Your task to perform on an android device: What's the latest video from GameSpot Reviews? Image 0: 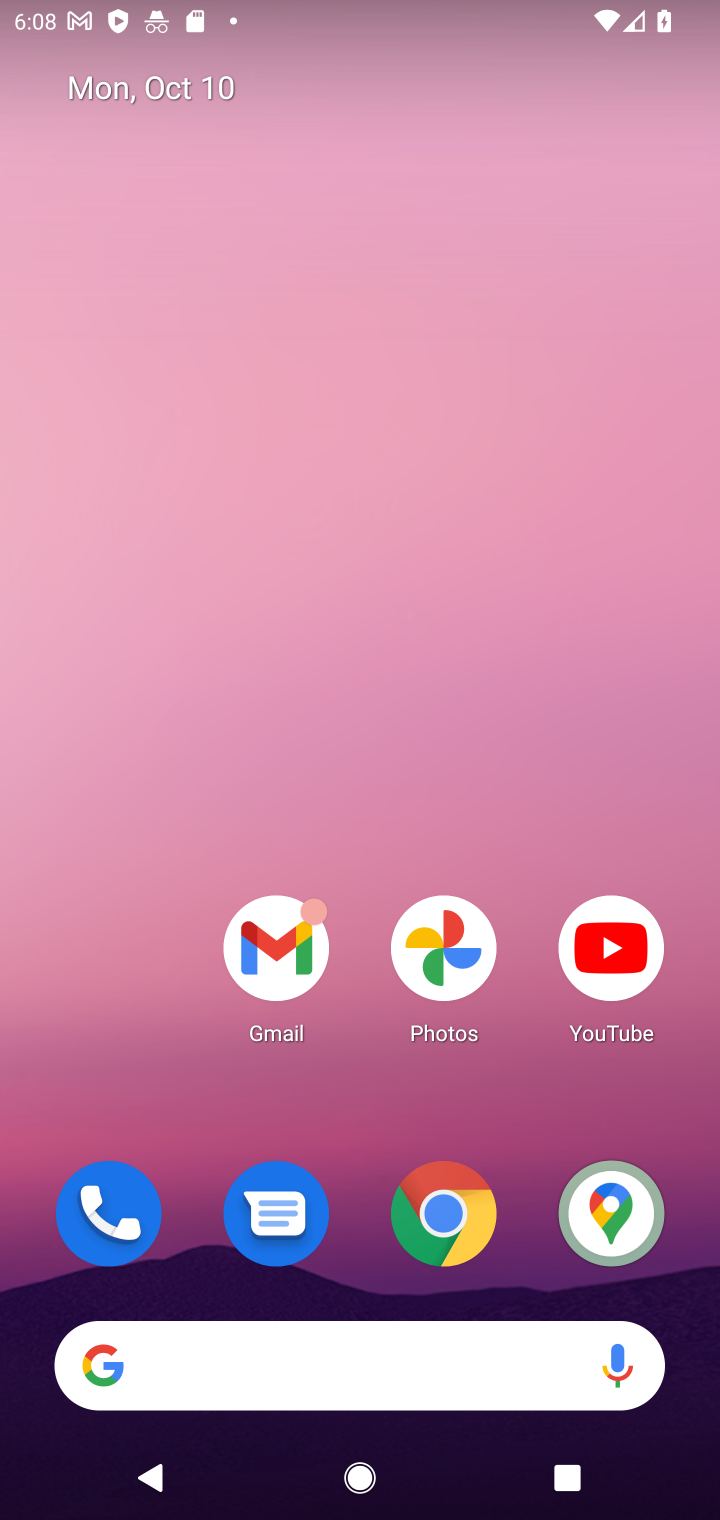
Step 0: click (611, 964)
Your task to perform on an android device: What's the latest video from GameSpot Reviews? Image 1: 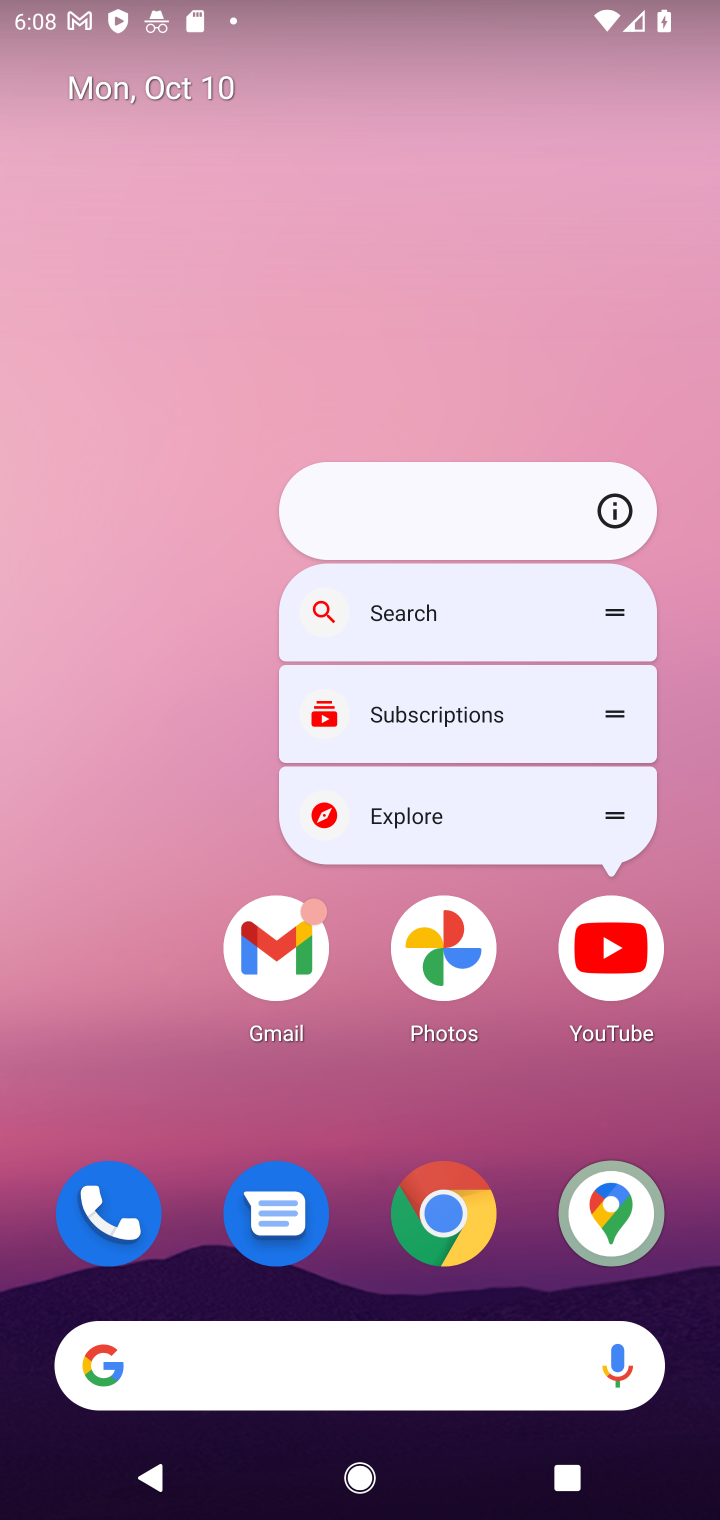
Step 1: click (611, 964)
Your task to perform on an android device: What's the latest video from GameSpot Reviews? Image 2: 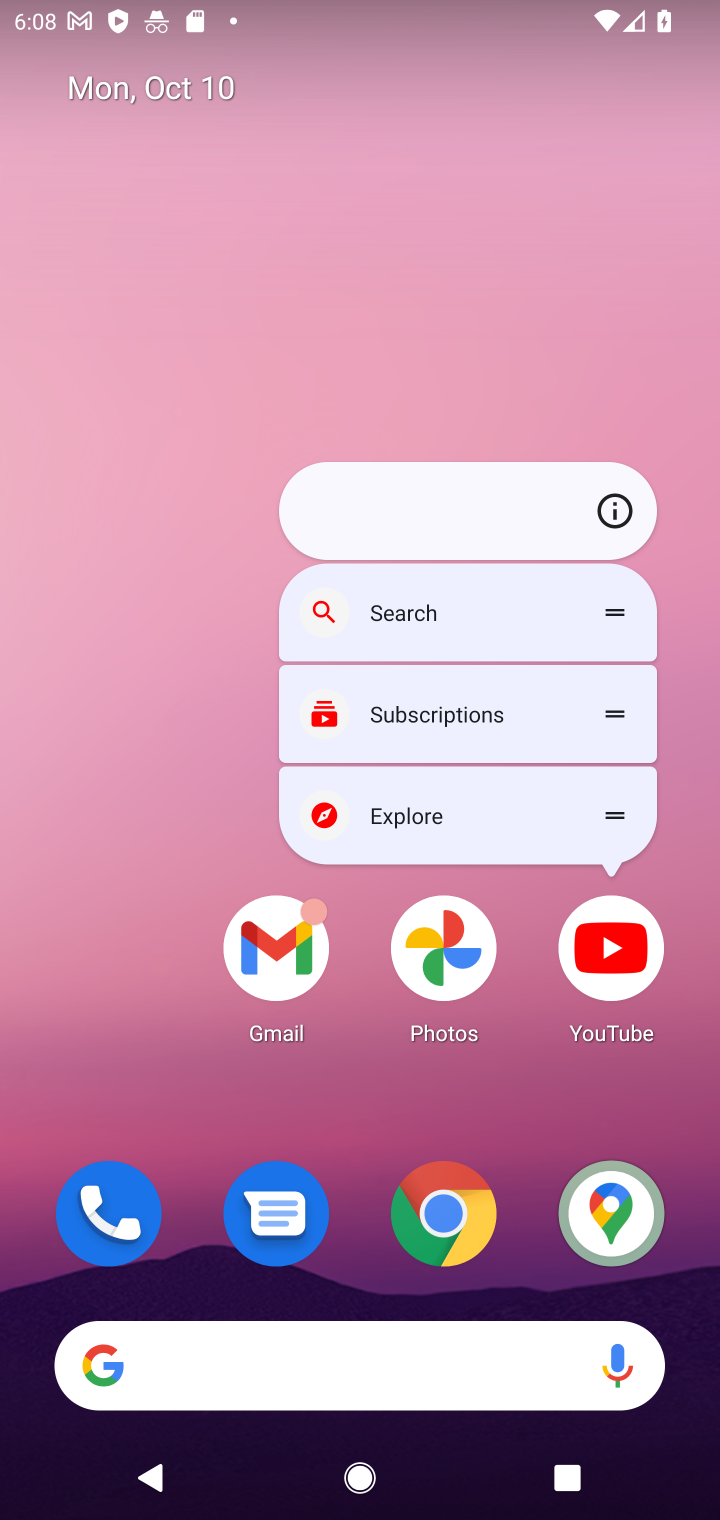
Step 2: click (623, 971)
Your task to perform on an android device: What's the latest video from GameSpot Reviews? Image 3: 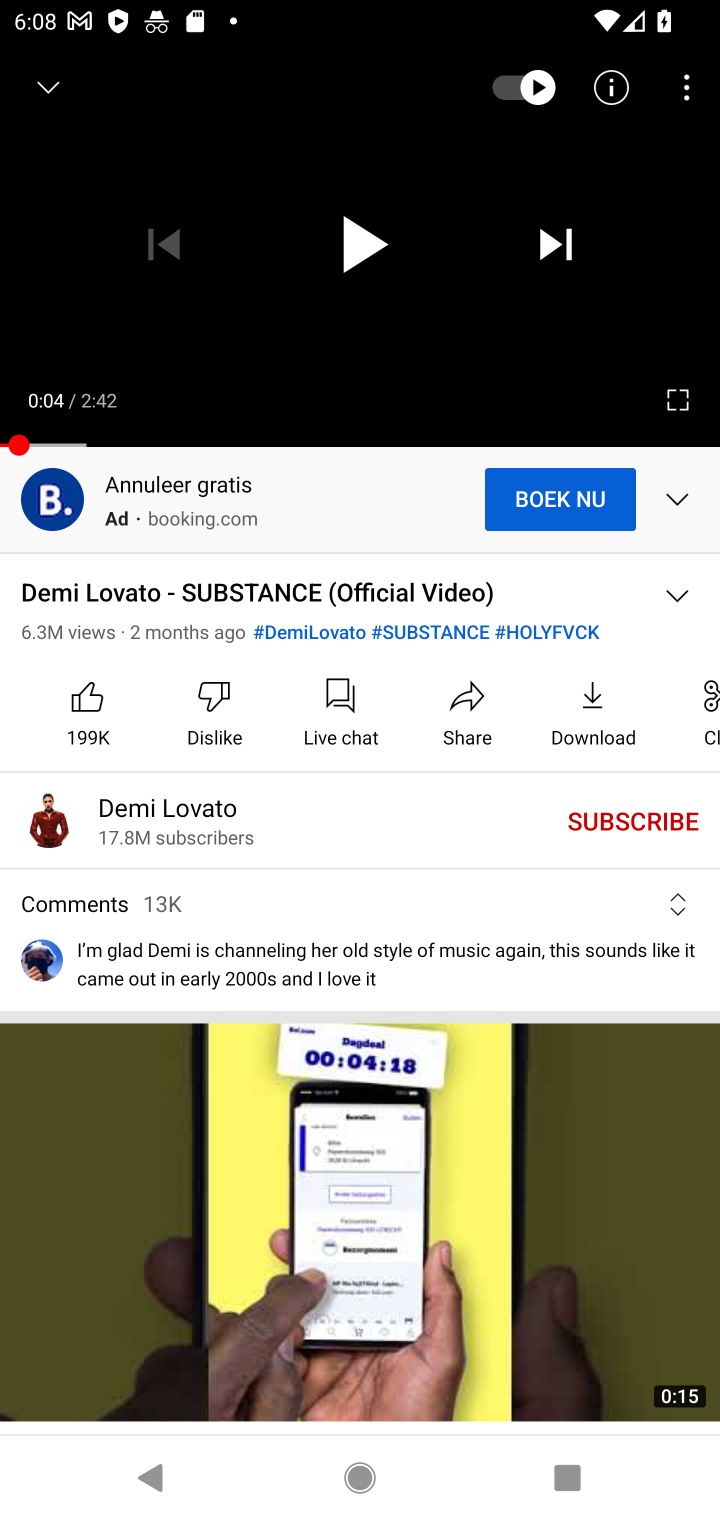
Step 3: click (51, 77)
Your task to perform on an android device: What's the latest video from GameSpot Reviews? Image 4: 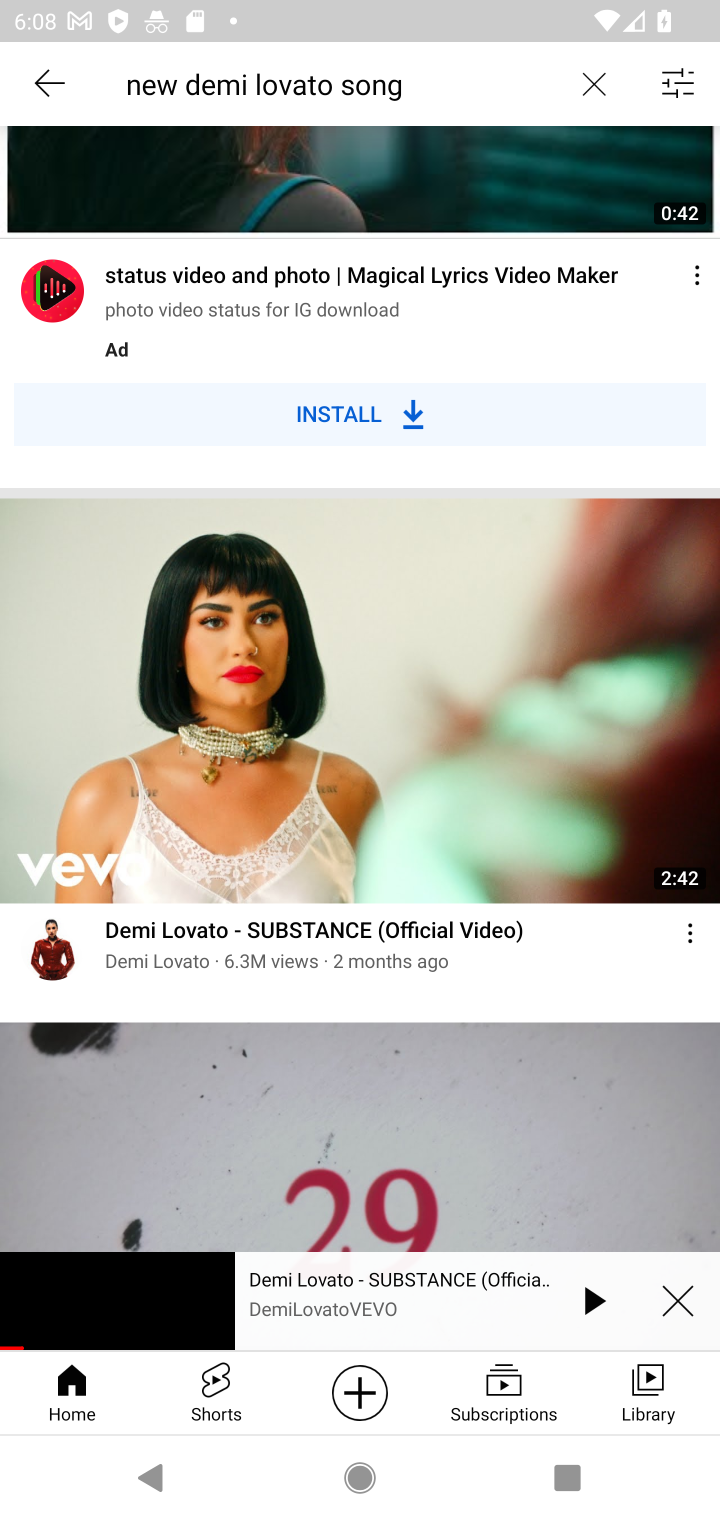
Step 4: click (586, 66)
Your task to perform on an android device: What's the latest video from GameSpot Reviews? Image 5: 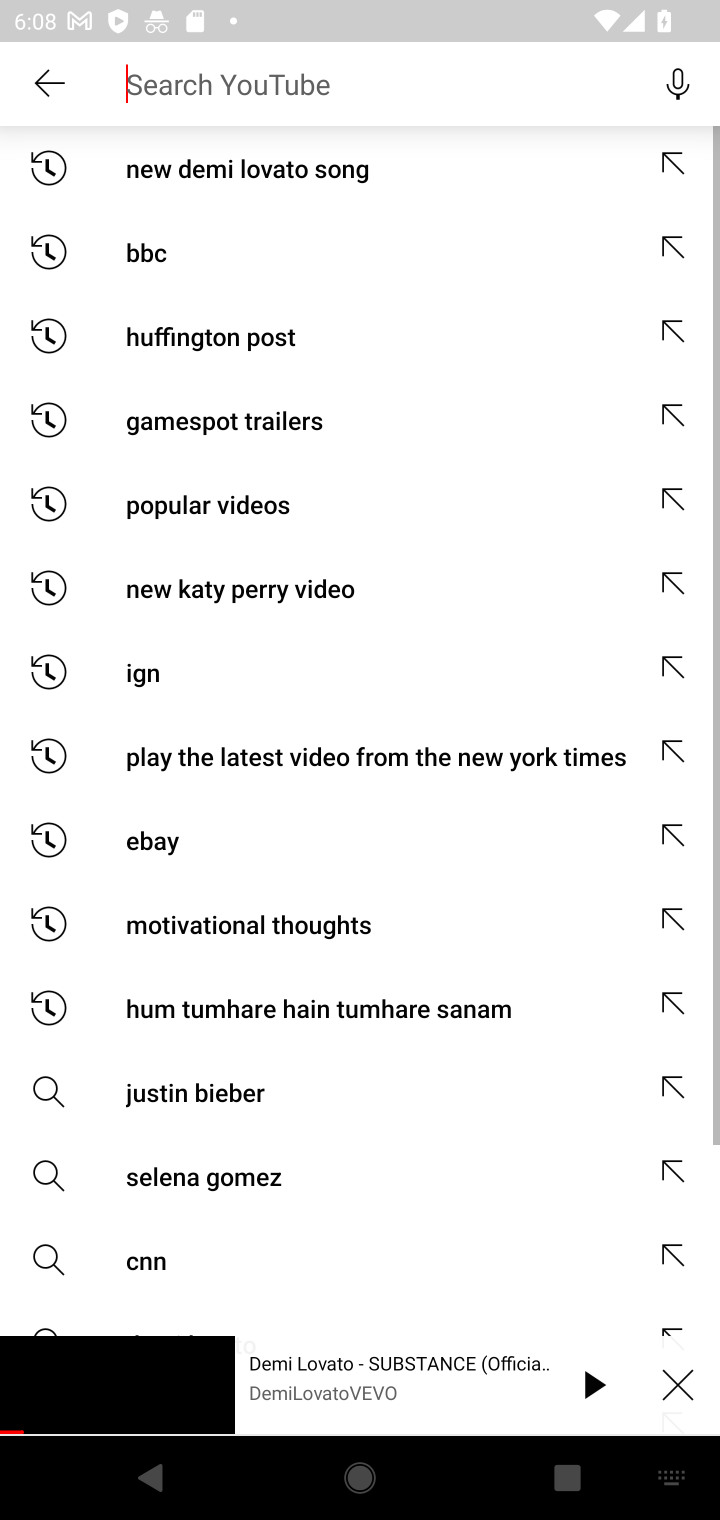
Step 5: click (273, 96)
Your task to perform on an android device: What's the latest video from GameSpot Reviews? Image 6: 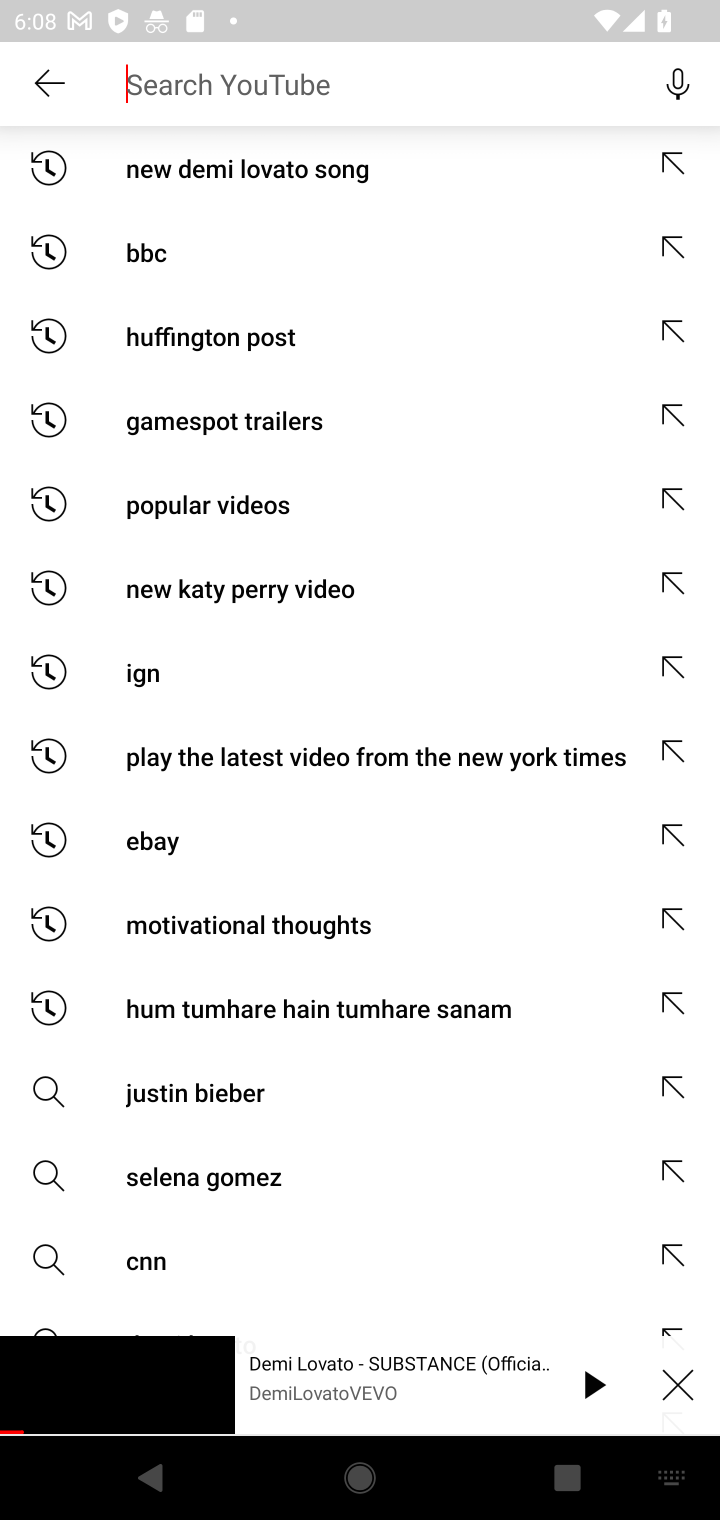
Step 6: type "GameSpot Reviews?"
Your task to perform on an android device: What's the latest video from GameSpot Reviews? Image 7: 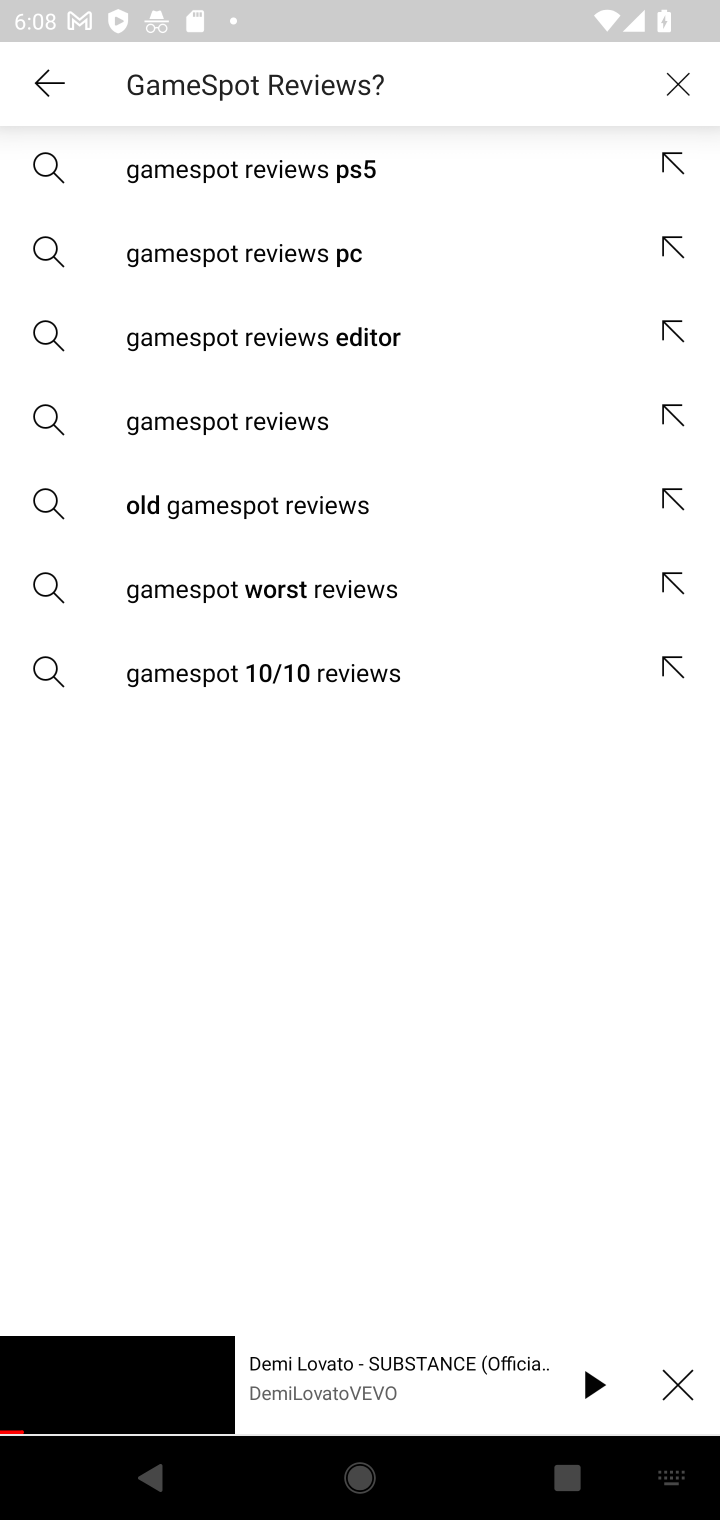
Step 7: click (241, 430)
Your task to perform on an android device: What's the latest video from GameSpot Reviews? Image 8: 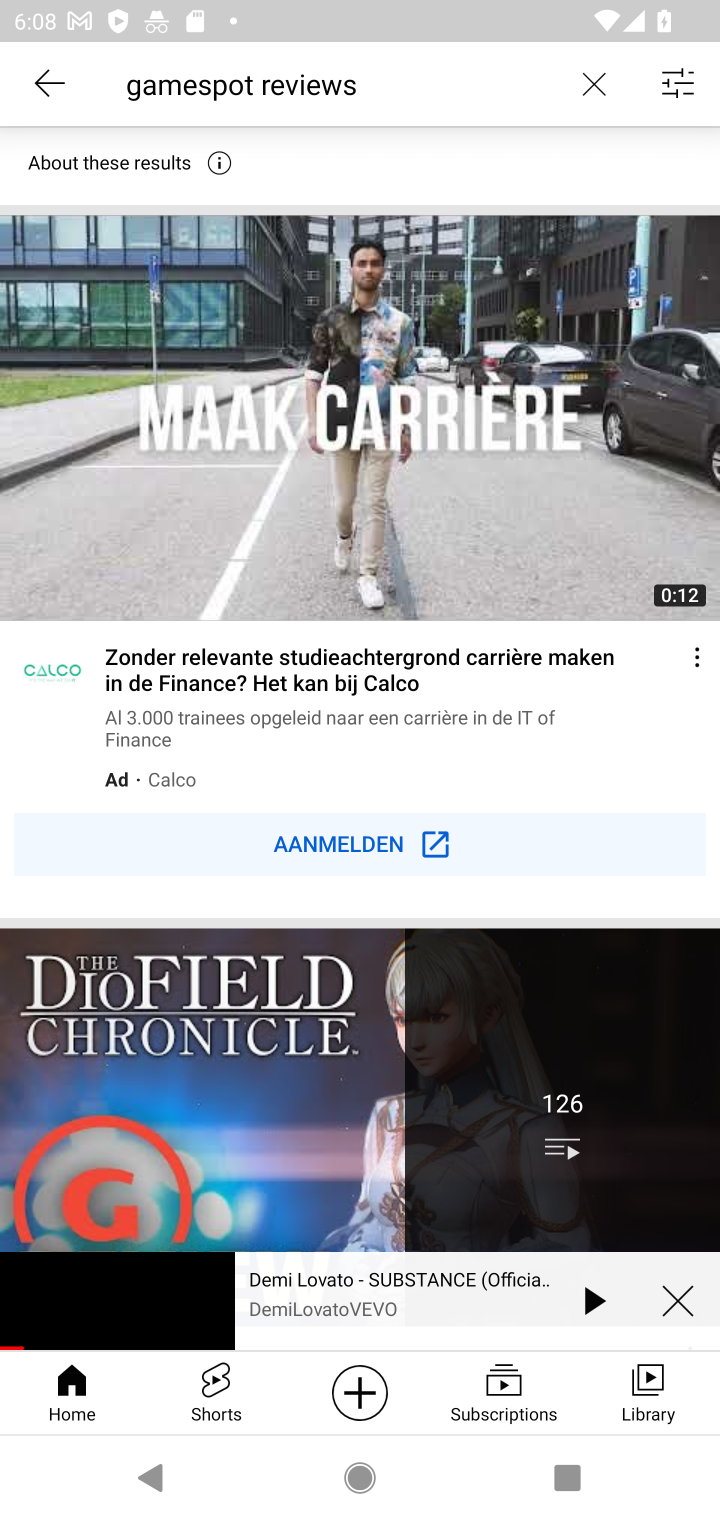
Step 8: drag from (444, 519) to (463, 186)
Your task to perform on an android device: What's the latest video from GameSpot Reviews? Image 9: 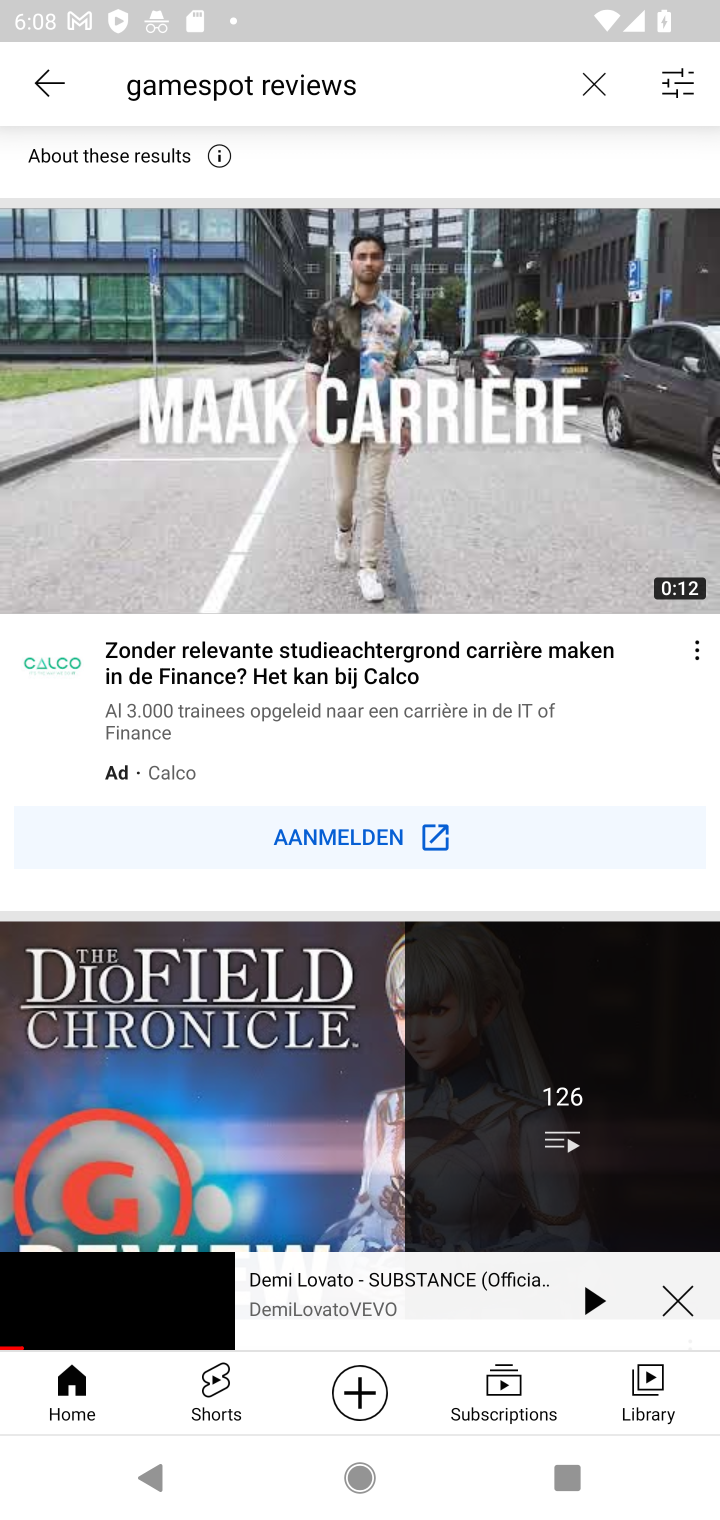
Step 9: drag from (322, 648) to (475, 67)
Your task to perform on an android device: What's the latest video from GameSpot Reviews? Image 10: 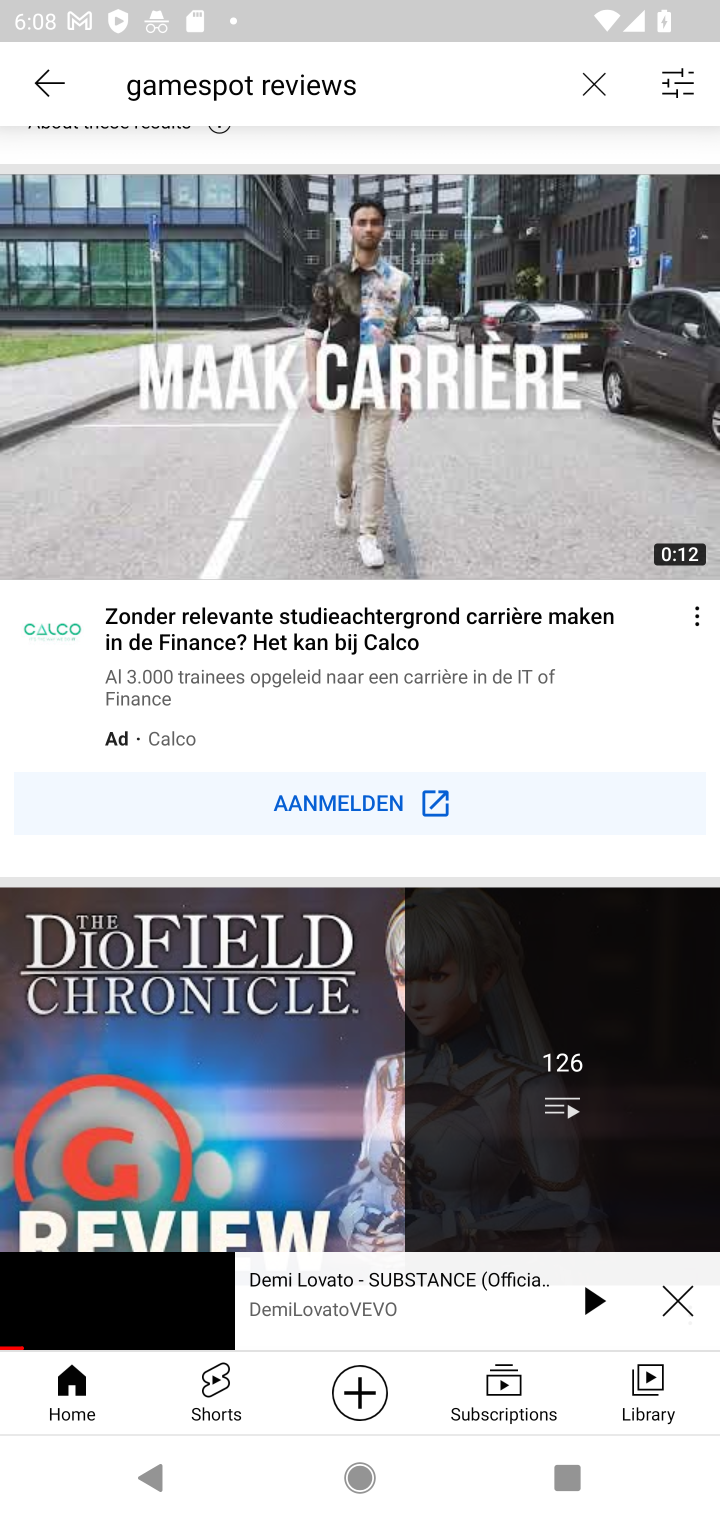
Step 10: drag from (323, 687) to (387, 208)
Your task to perform on an android device: What's the latest video from GameSpot Reviews? Image 11: 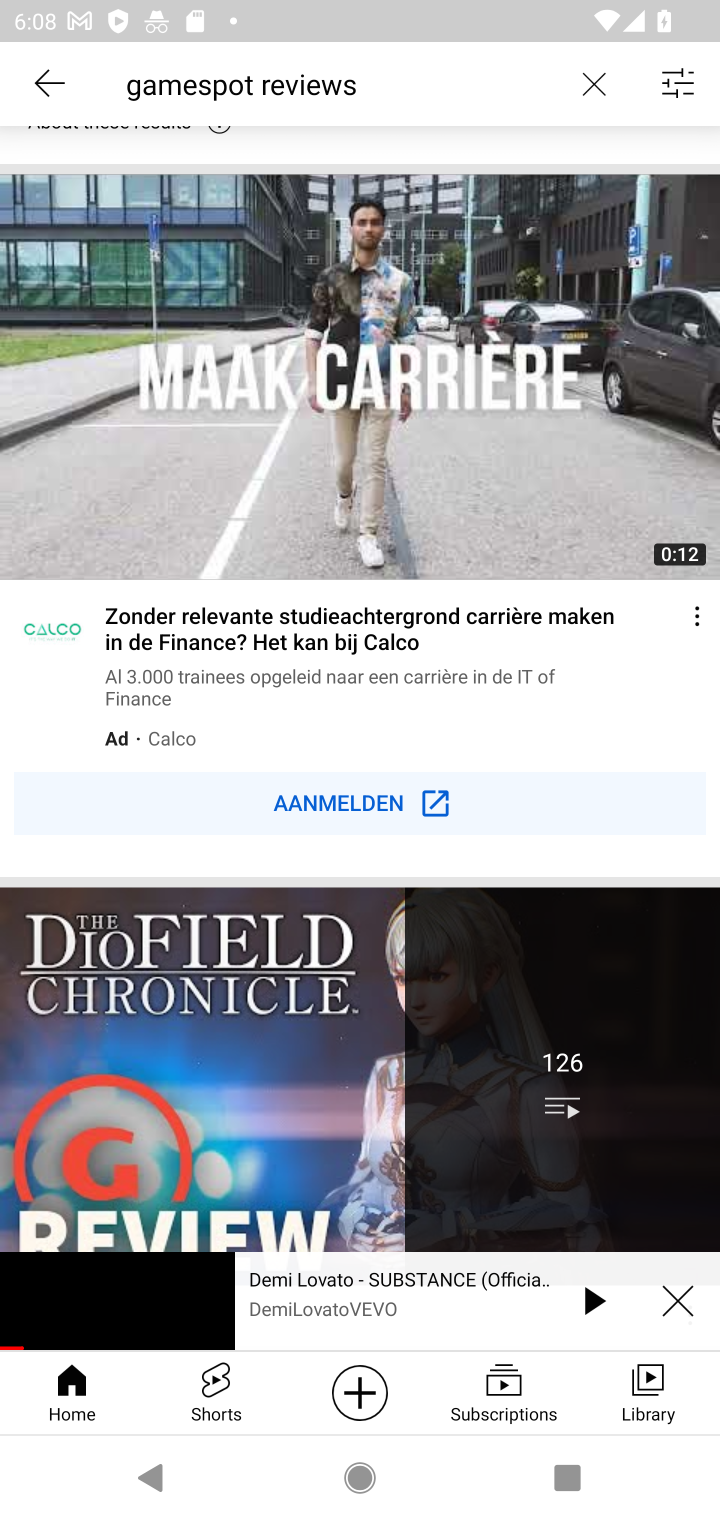
Step 11: drag from (481, 641) to (484, 198)
Your task to perform on an android device: What's the latest video from GameSpot Reviews? Image 12: 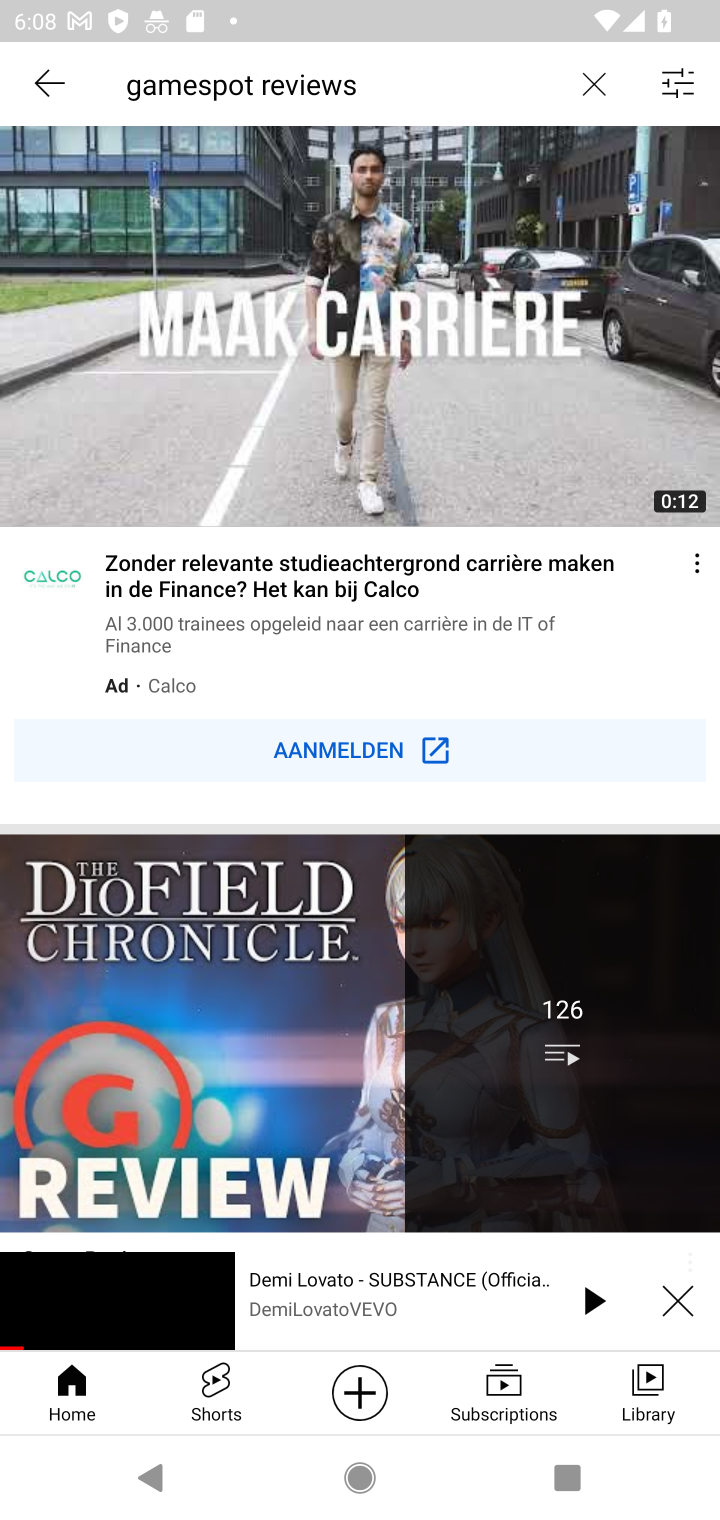
Step 12: drag from (327, 902) to (393, 475)
Your task to perform on an android device: What's the latest video from GameSpot Reviews? Image 13: 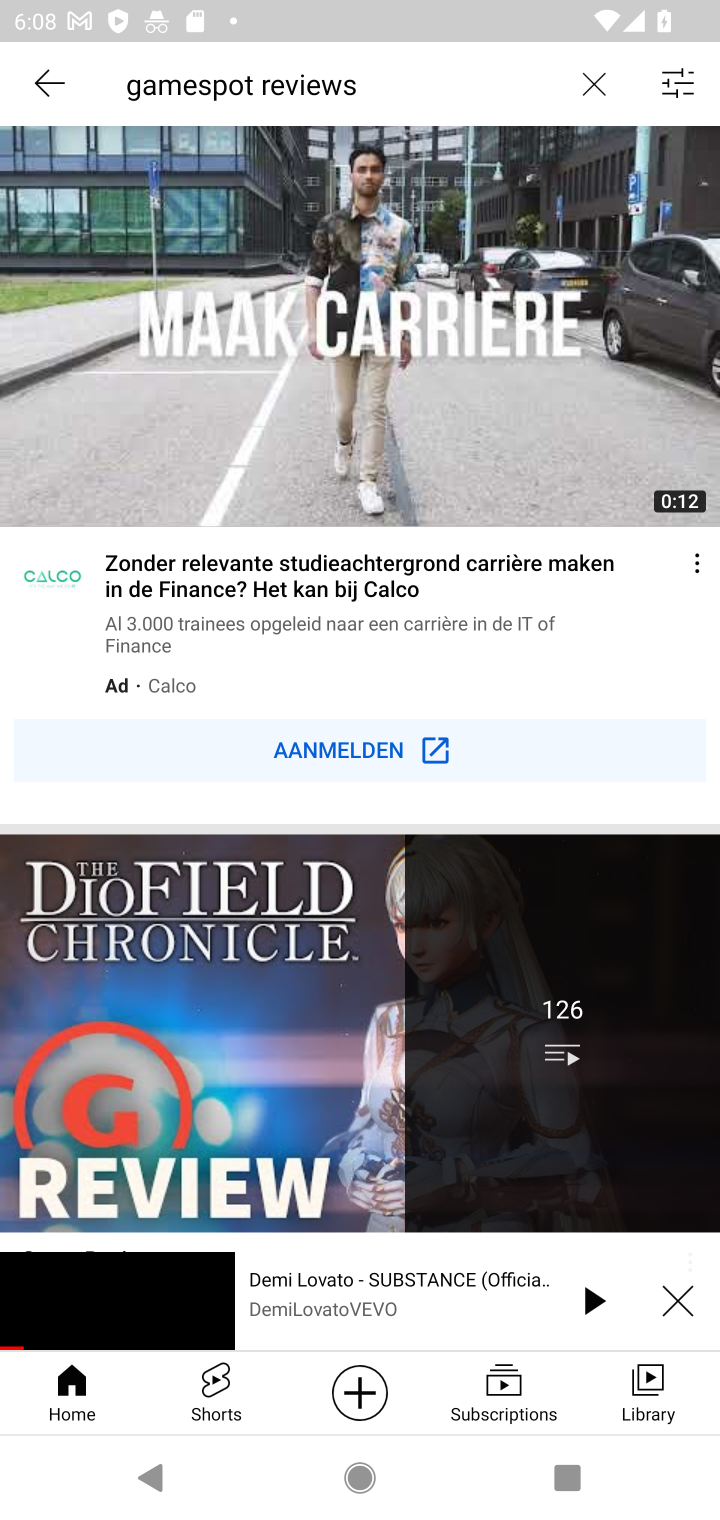
Step 13: drag from (340, 1039) to (408, 93)
Your task to perform on an android device: What's the latest video from GameSpot Reviews? Image 14: 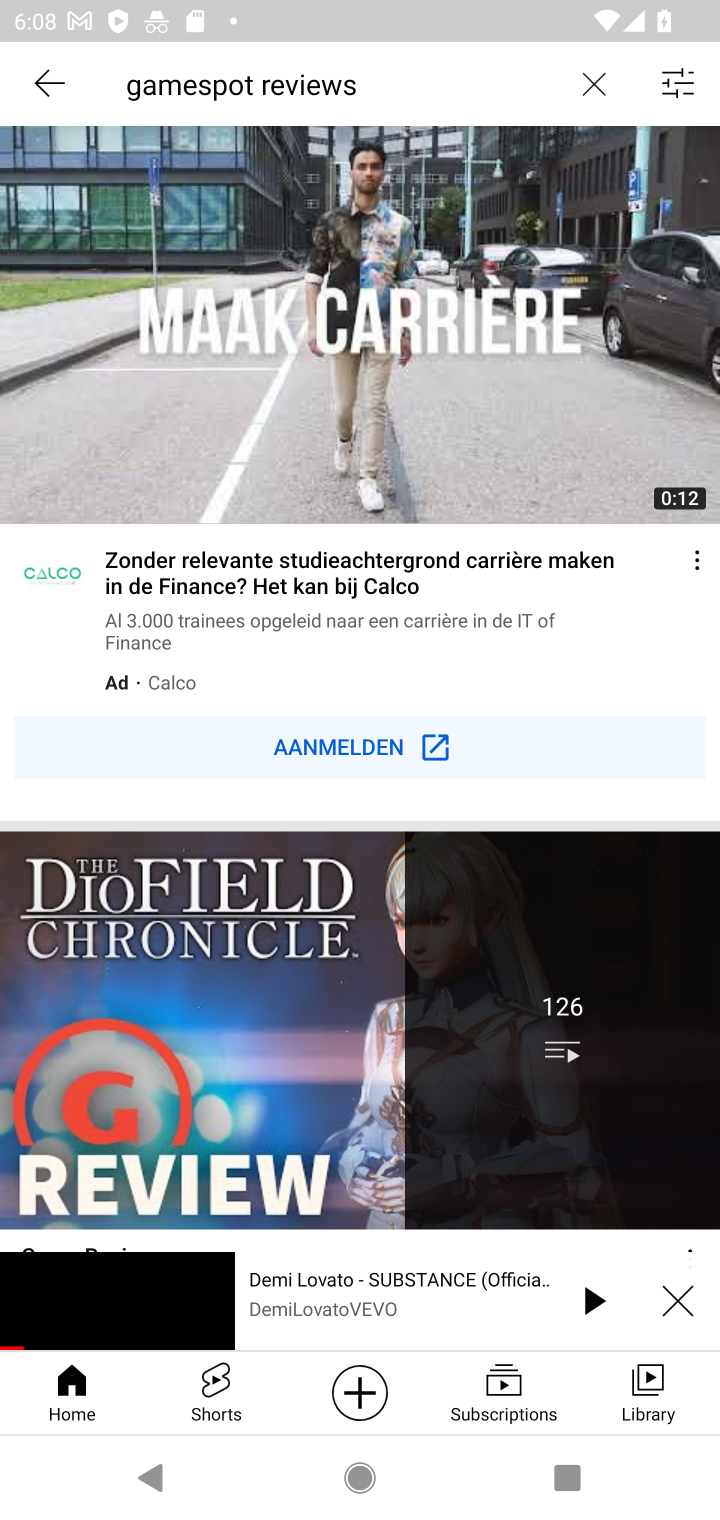
Step 14: click (683, 1303)
Your task to perform on an android device: What's the latest video from GameSpot Reviews? Image 15: 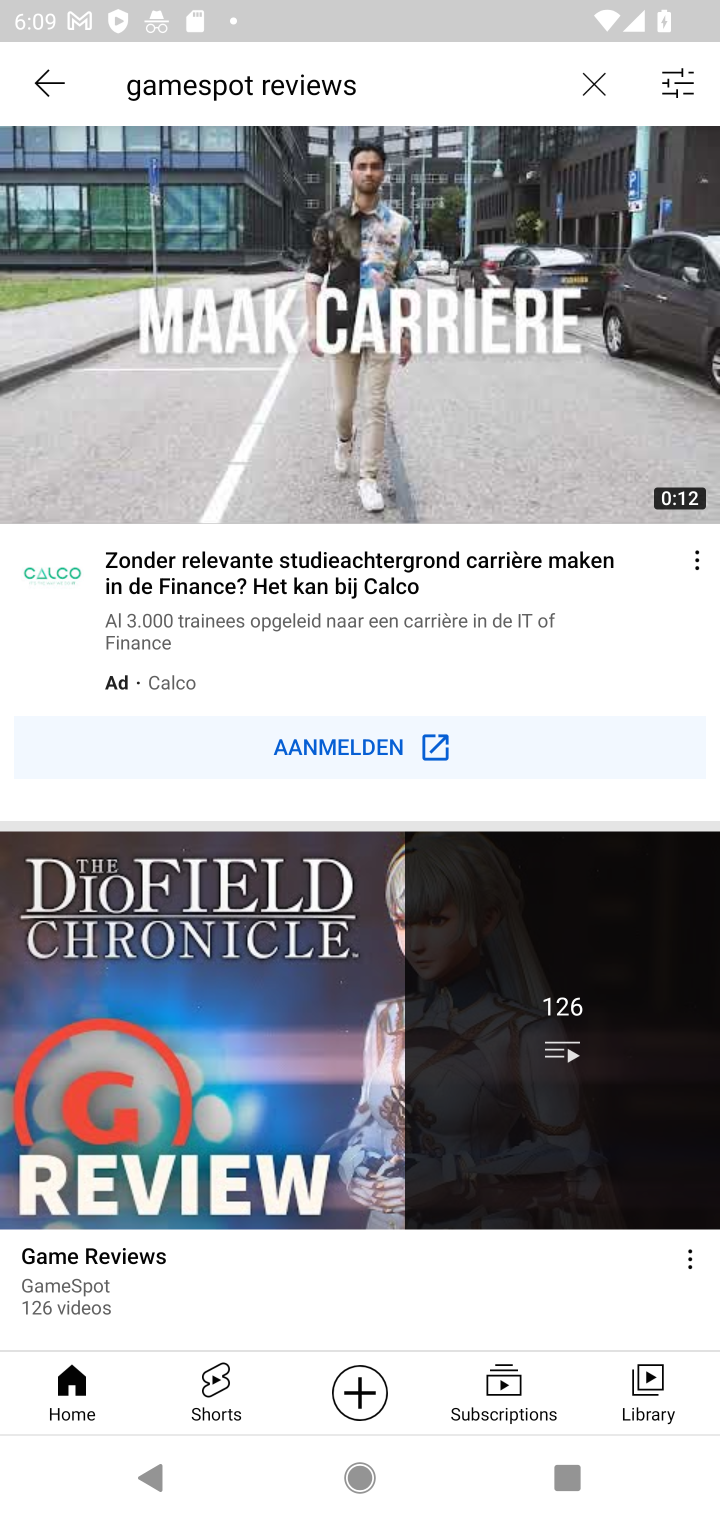
Step 15: drag from (302, 833) to (362, 298)
Your task to perform on an android device: What's the latest video from GameSpot Reviews? Image 16: 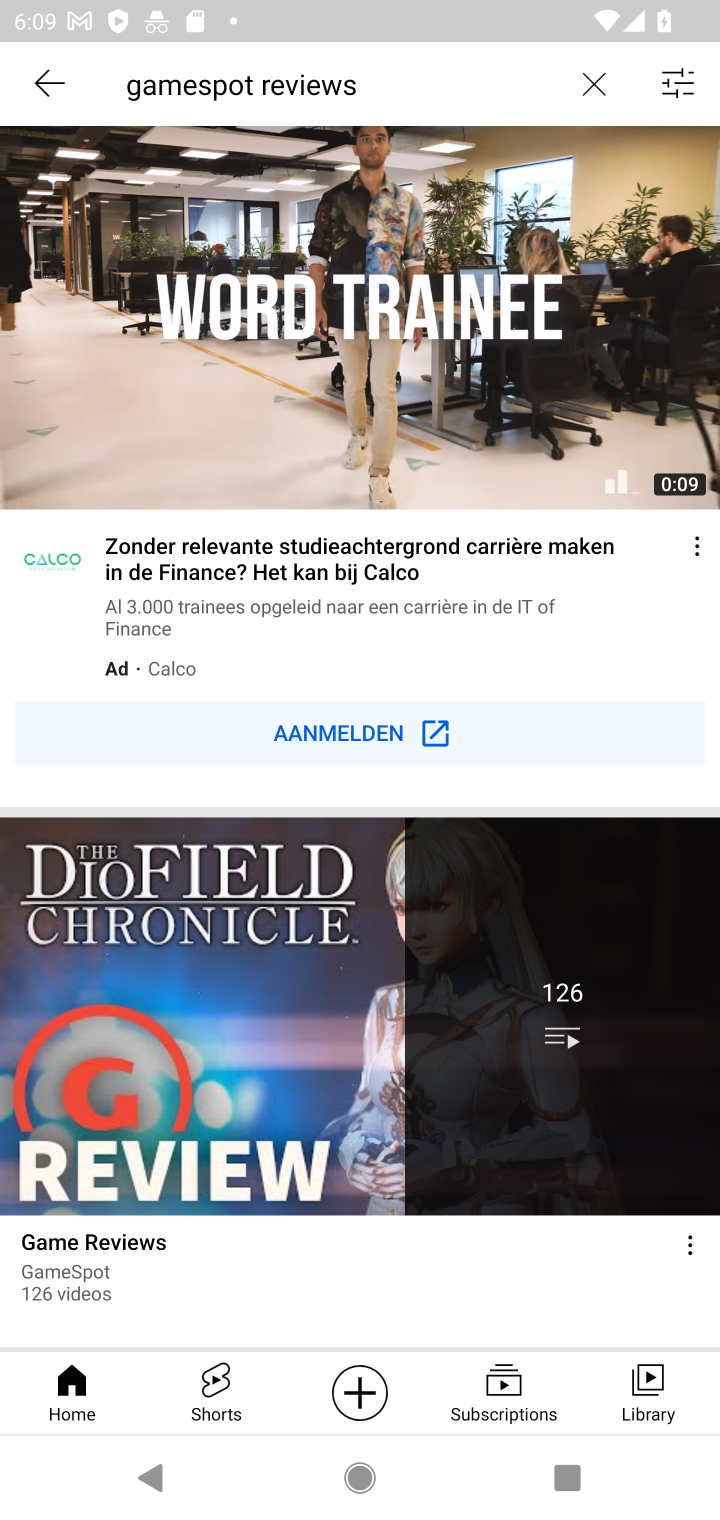
Step 16: click (253, 1048)
Your task to perform on an android device: What's the latest video from GameSpot Reviews? Image 17: 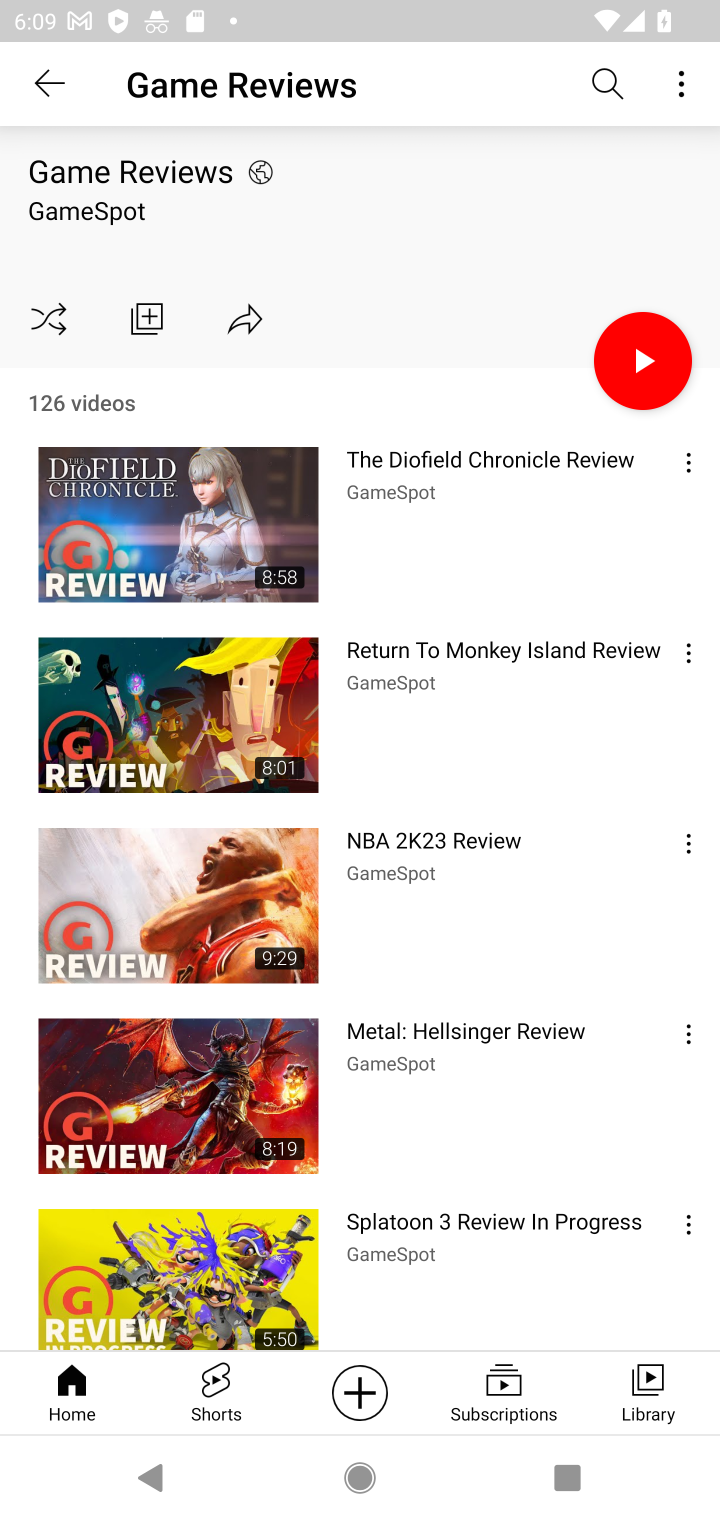
Step 17: click (176, 525)
Your task to perform on an android device: What's the latest video from GameSpot Reviews? Image 18: 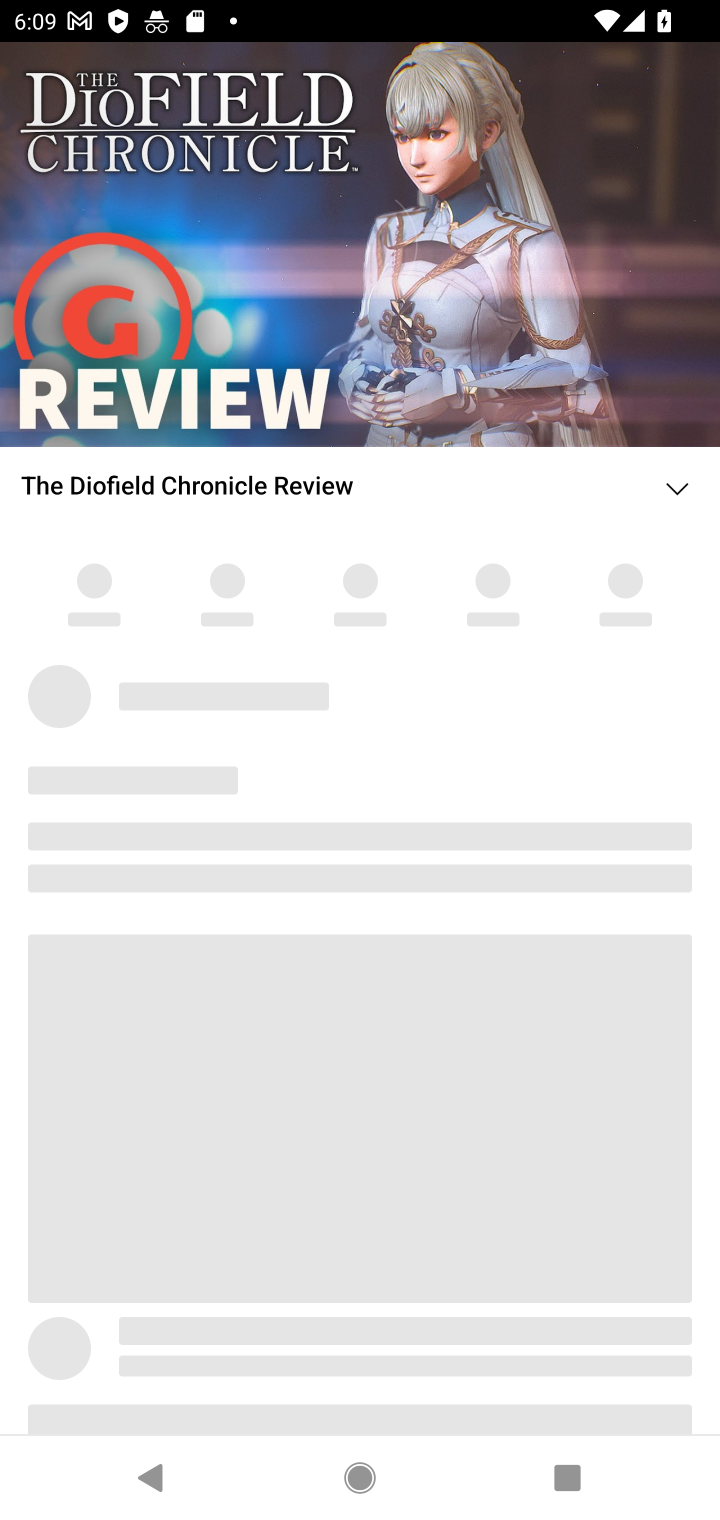
Step 18: task complete